Your task to perform on an android device: delete the emails in spam in the gmail app Image 0: 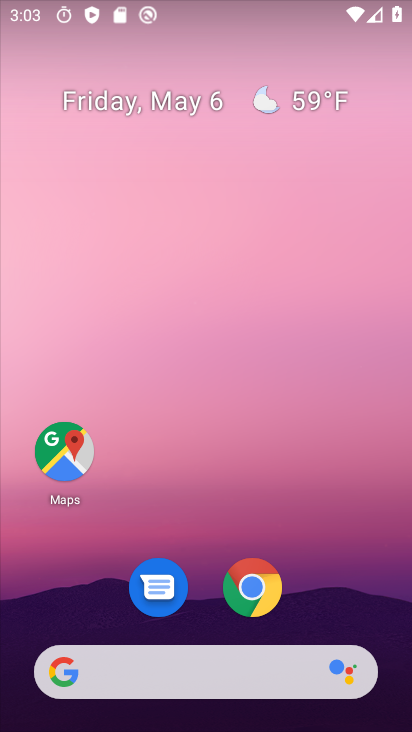
Step 0: press home button
Your task to perform on an android device: delete the emails in spam in the gmail app Image 1: 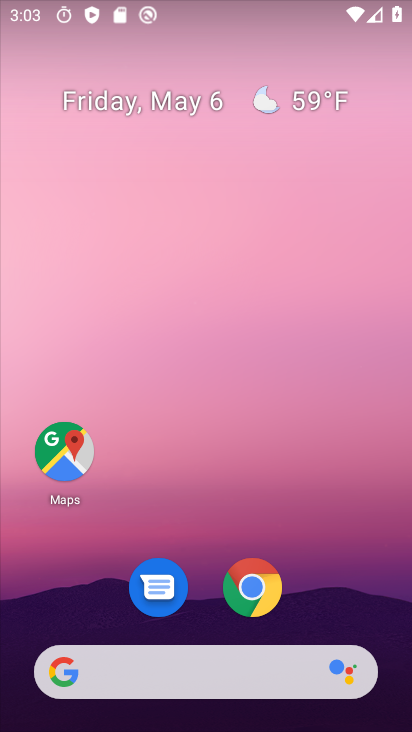
Step 1: drag from (285, 494) to (289, 36)
Your task to perform on an android device: delete the emails in spam in the gmail app Image 2: 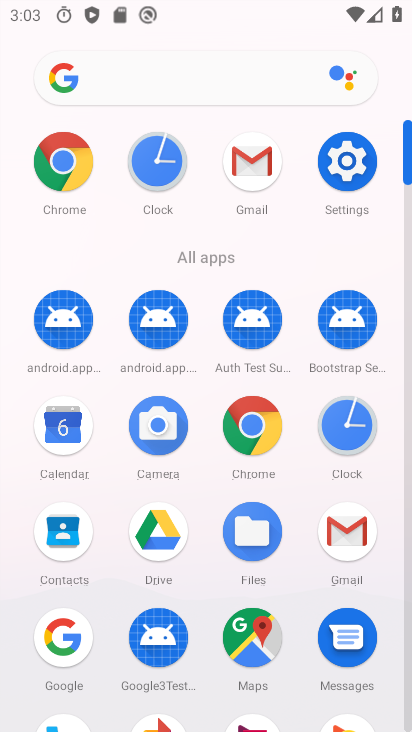
Step 2: click (260, 164)
Your task to perform on an android device: delete the emails in spam in the gmail app Image 3: 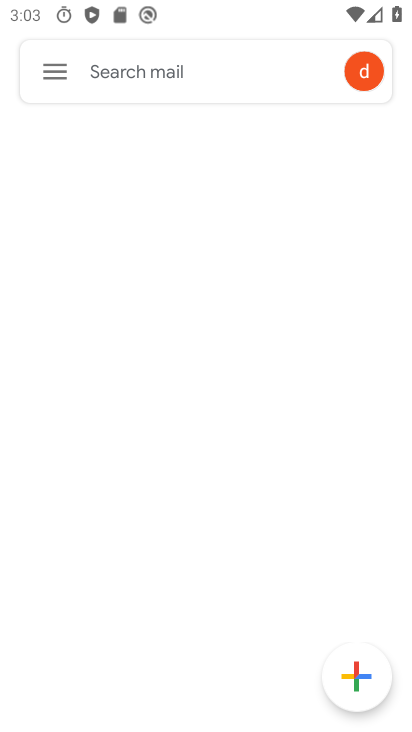
Step 3: click (60, 68)
Your task to perform on an android device: delete the emails in spam in the gmail app Image 4: 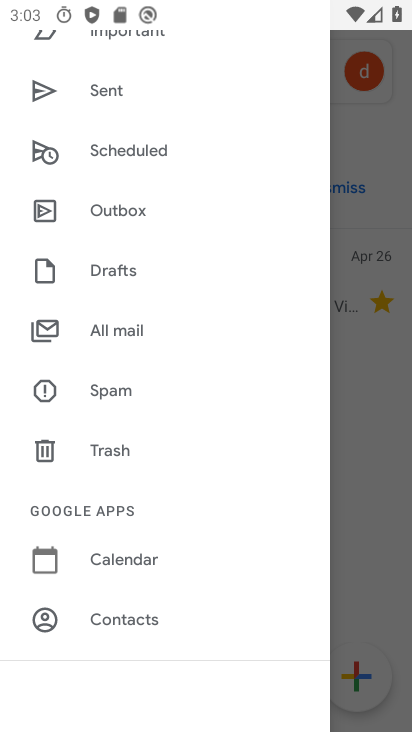
Step 4: click (121, 383)
Your task to perform on an android device: delete the emails in spam in the gmail app Image 5: 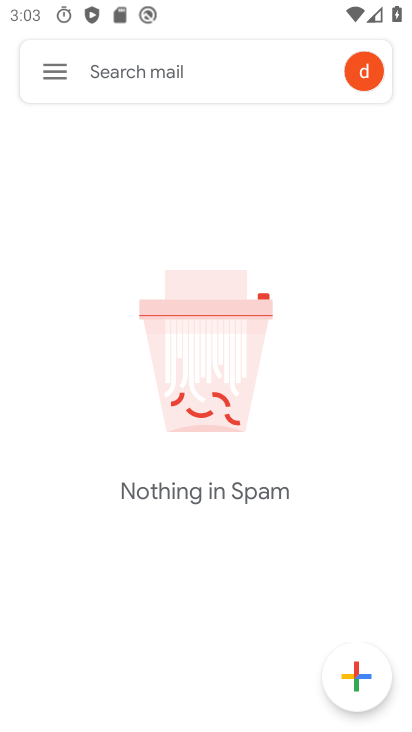
Step 5: task complete